Your task to perform on an android device: Check the weather Image 0: 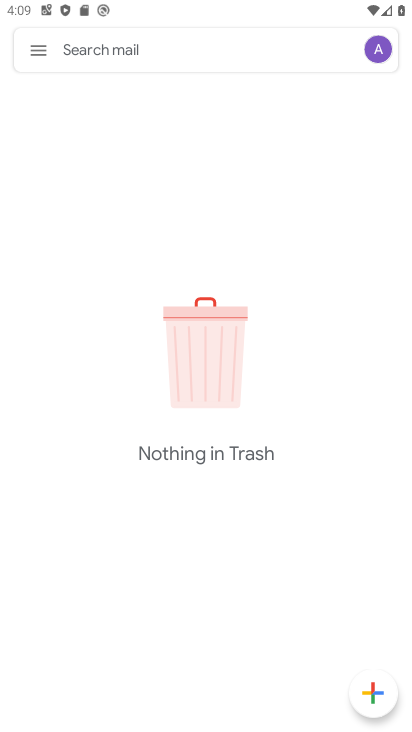
Step 0: press home button
Your task to perform on an android device: Check the weather Image 1: 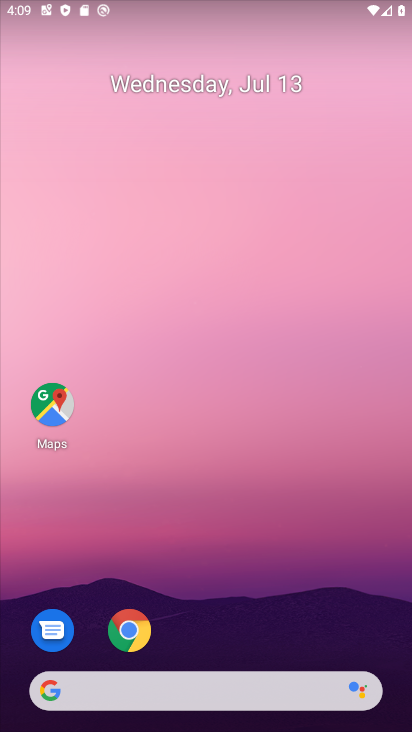
Step 1: drag from (275, 604) to (353, 62)
Your task to perform on an android device: Check the weather Image 2: 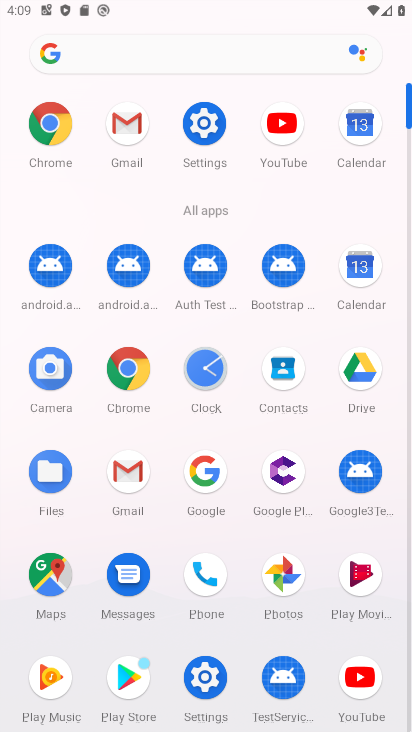
Step 2: click (113, 360)
Your task to perform on an android device: Check the weather Image 3: 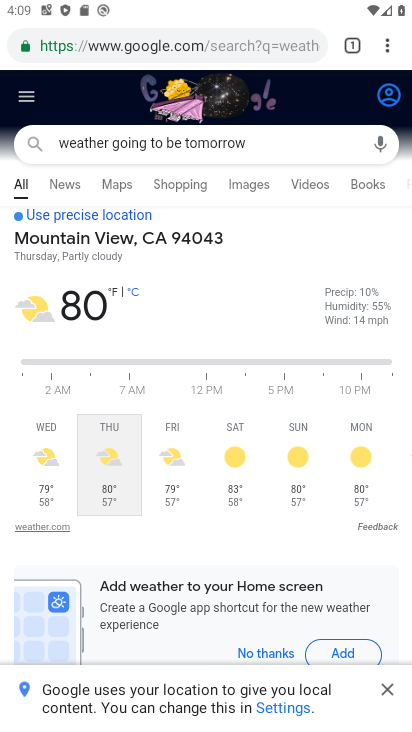
Step 3: task complete